Your task to perform on an android device: turn on the 24-hour format for clock Image 0: 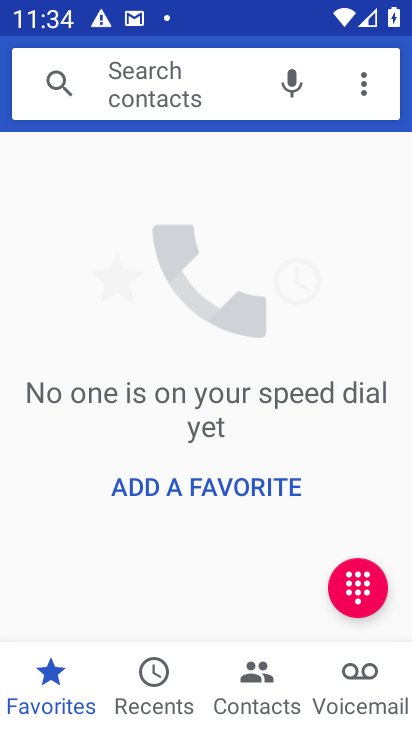
Step 0: press home button
Your task to perform on an android device: turn on the 24-hour format for clock Image 1: 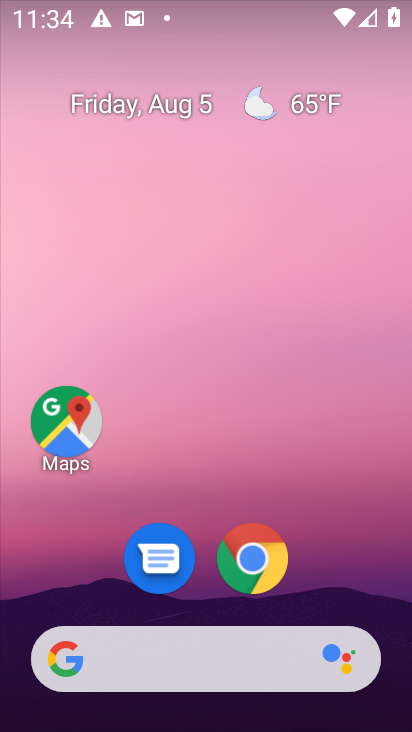
Step 1: drag from (377, 593) to (408, 177)
Your task to perform on an android device: turn on the 24-hour format for clock Image 2: 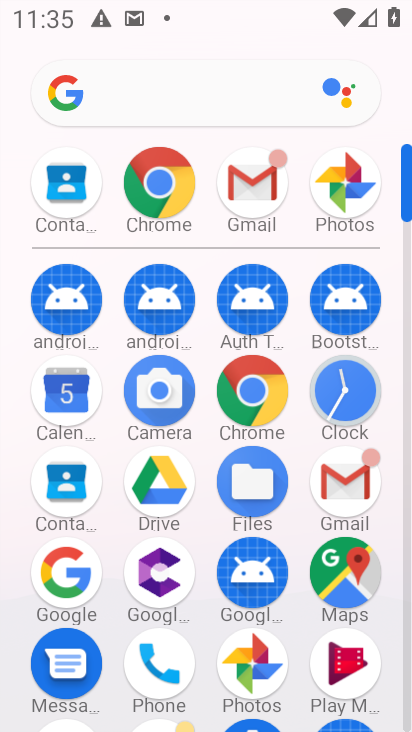
Step 2: click (338, 392)
Your task to perform on an android device: turn on the 24-hour format for clock Image 3: 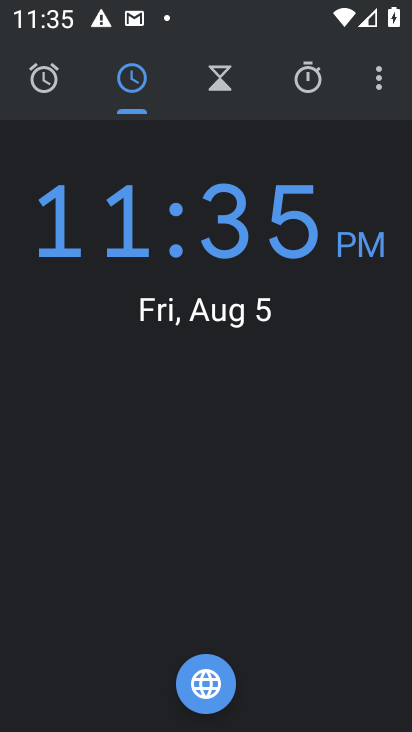
Step 3: click (380, 80)
Your task to perform on an android device: turn on the 24-hour format for clock Image 4: 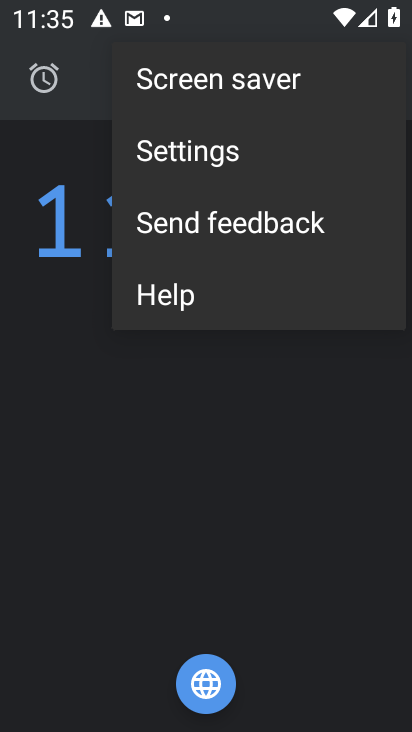
Step 4: click (230, 152)
Your task to perform on an android device: turn on the 24-hour format for clock Image 5: 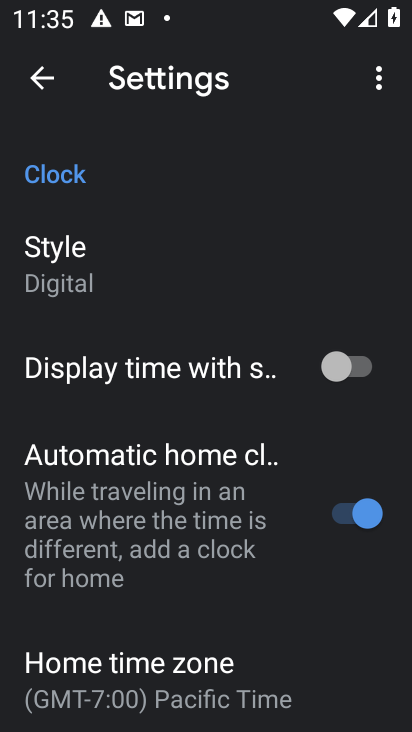
Step 5: drag from (295, 495) to (280, 363)
Your task to perform on an android device: turn on the 24-hour format for clock Image 6: 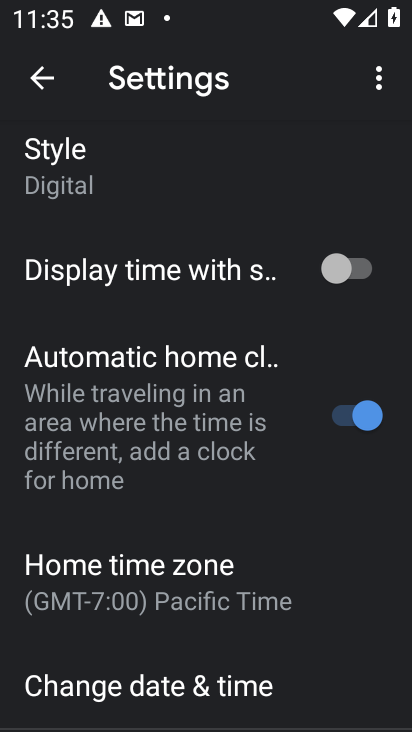
Step 6: drag from (281, 518) to (280, 409)
Your task to perform on an android device: turn on the 24-hour format for clock Image 7: 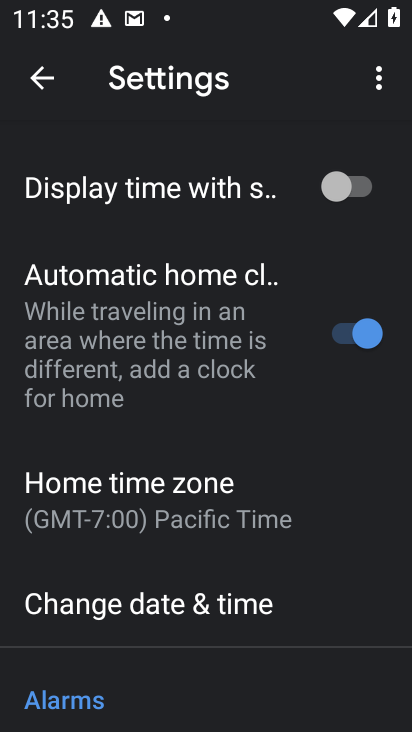
Step 7: drag from (276, 545) to (282, 385)
Your task to perform on an android device: turn on the 24-hour format for clock Image 8: 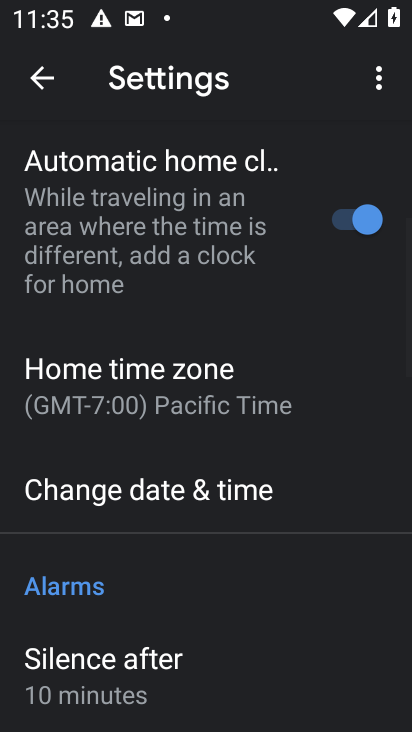
Step 8: drag from (306, 541) to (309, 418)
Your task to perform on an android device: turn on the 24-hour format for clock Image 9: 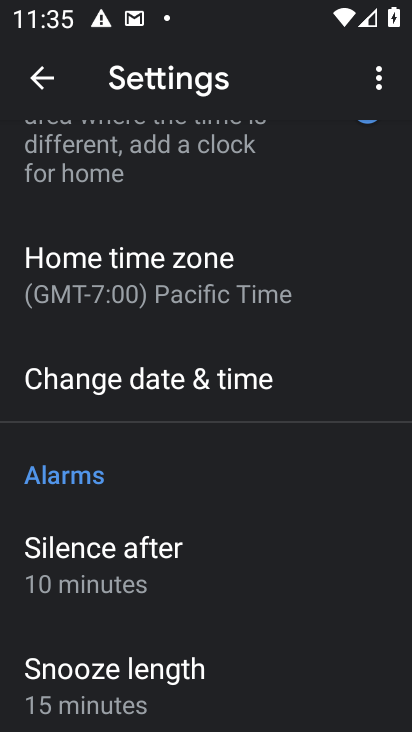
Step 9: click (287, 395)
Your task to perform on an android device: turn on the 24-hour format for clock Image 10: 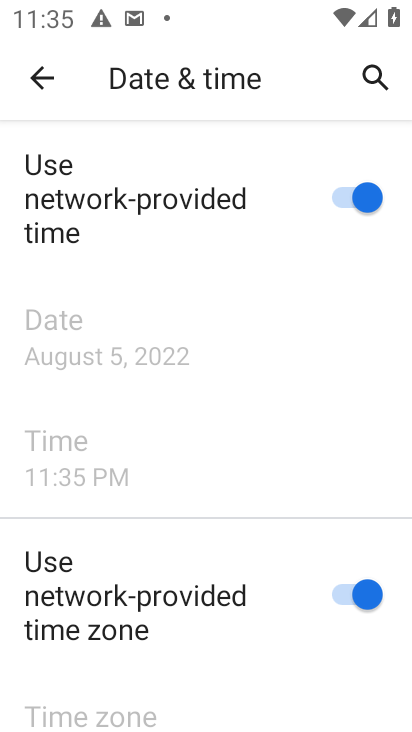
Step 10: drag from (288, 521) to (280, 376)
Your task to perform on an android device: turn on the 24-hour format for clock Image 11: 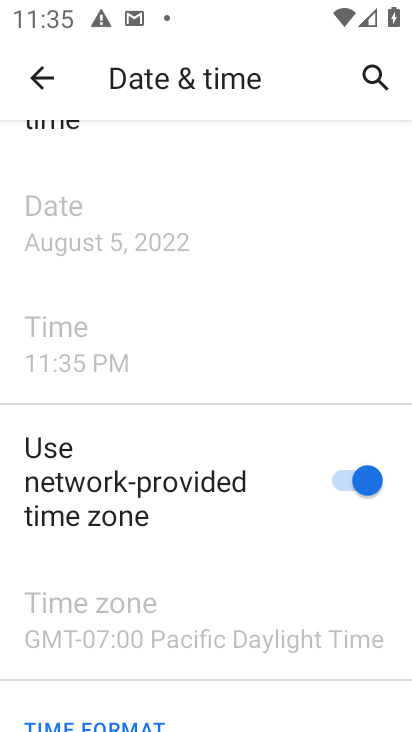
Step 11: drag from (276, 600) to (281, 441)
Your task to perform on an android device: turn on the 24-hour format for clock Image 12: 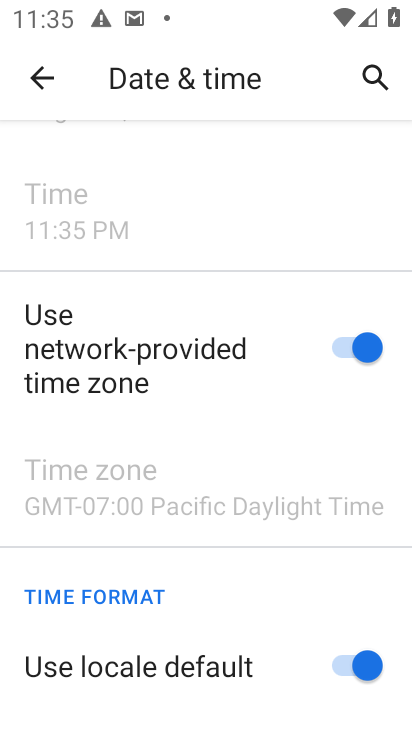
Step 12: drag from (258, 610) to (260, 432)
Your task to perform on an android device: turn on the 24-hour format for clock Image 13: 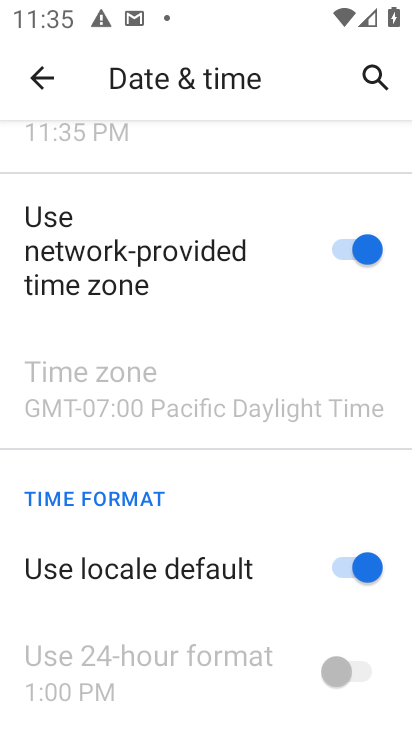
Step 13: click (366, 568)
Your task to perform on an android device: turn on the 24-hour format for clock Image 14: 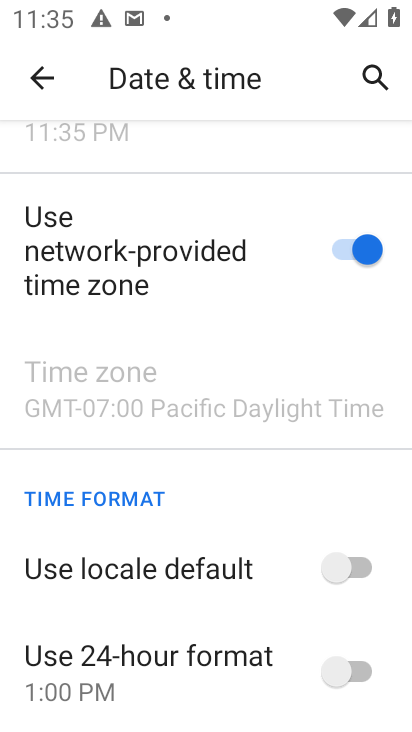
Step 14: click (344, 671)
Your task to perform on an android device: turn on the 24-hour format for clock Image 15: 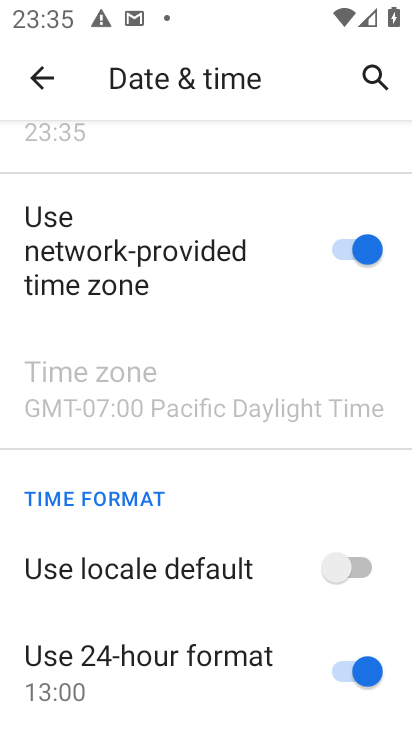
Step 15: task complete